Your task to perform on an android device: read, delete, or share a saved page in the chrome app Image 0: 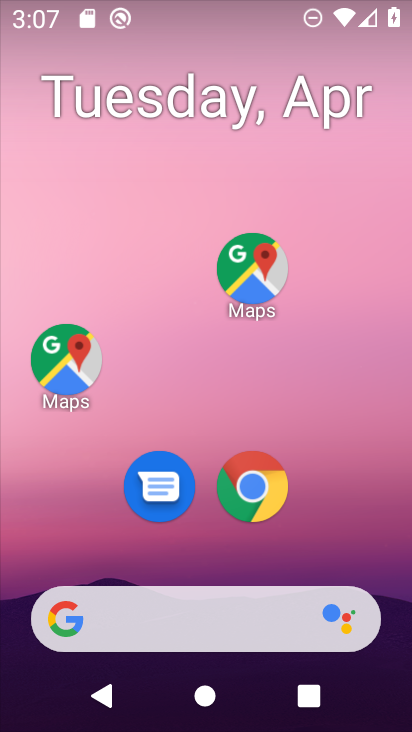
Step 0: click (250, 504)
Your task to perform on an android device: read, delete, or share a saved page in the chrome app Image 1: 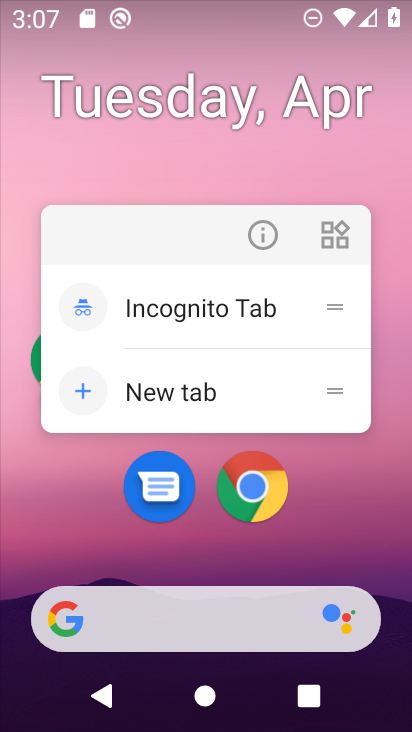
Step 1: click (213, 401)
Your task to perform on an android device: read, delete, or share a saved page in the chrome app Image 2: 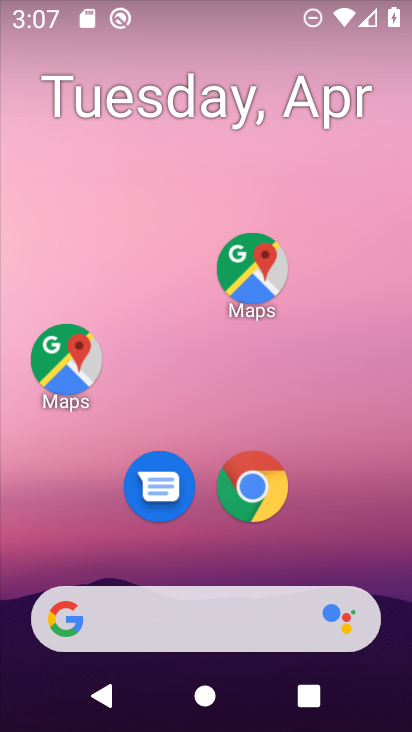
Step 2: click (255, 499)
Your task to perform on an android device: read, delete, or share a saved page in the chrome app Image 3: 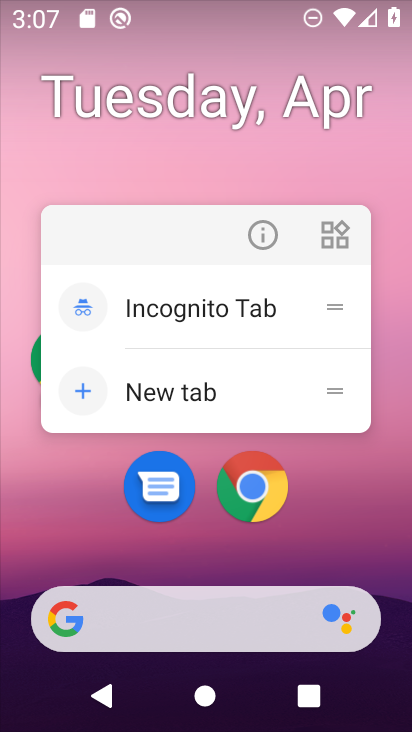
Step 3: click (253, 246)
Your task to perform on an android device: read, delete, or share a saved page in the chrome app Image 4: 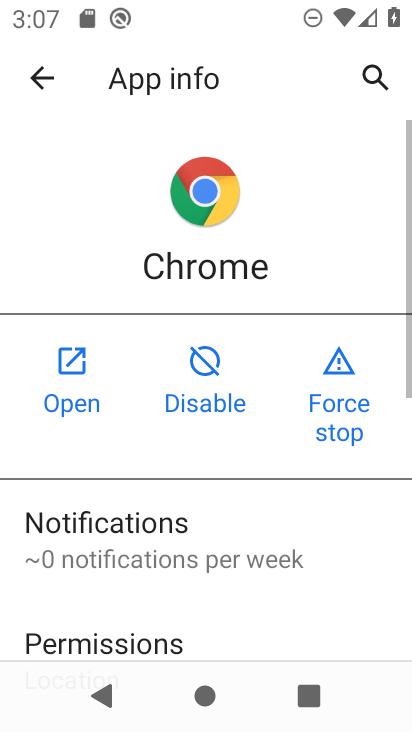
Step 4: click (45, 378)
Your task to perform on an android device: read, delete, or share a saved page in the chrome app Image 5: 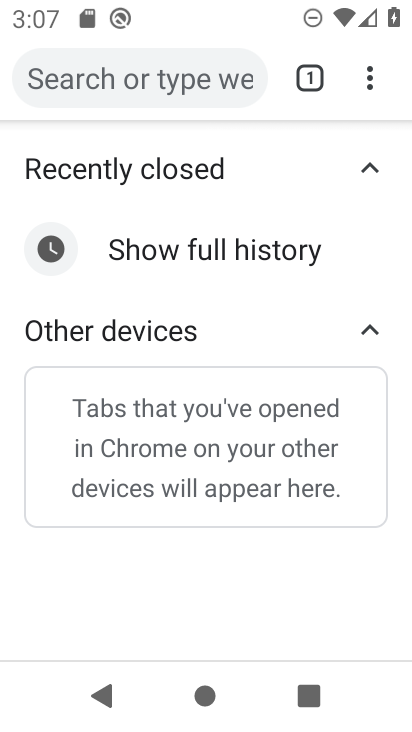
Step 5: click (320, 73)
Your task to perform on an android device: read, delete, or share a saved page in the chrome app Image 6: 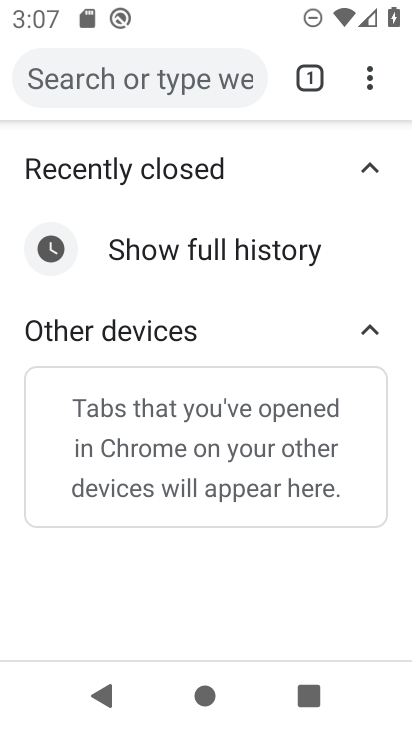
Step 6: click (310, 82)
Your task to perform on an android device: read, delete, or share a saved page in the chrome app Image 7: 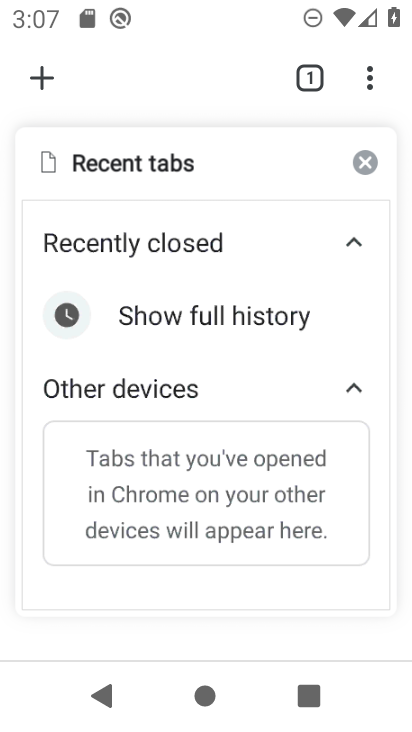
Step 7: click (33, 88)
Your task to perform on an android device: read, delete, or share a saved page in the chrome app Image 8: 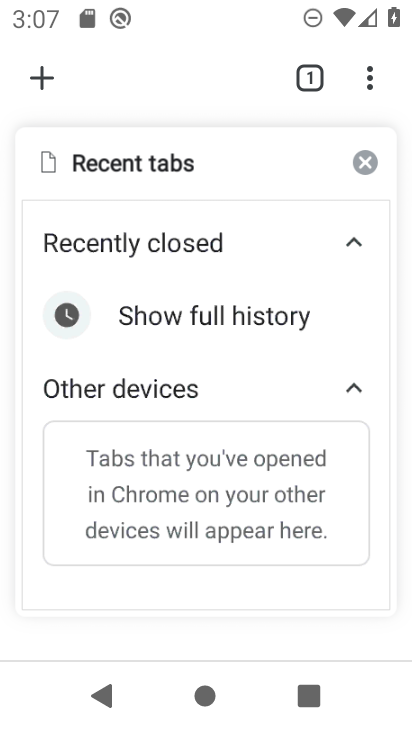
Step 8: click (40, 76)
Your task to perform on an android device: read, delete, or share a saved page in the chrome app Image 9: 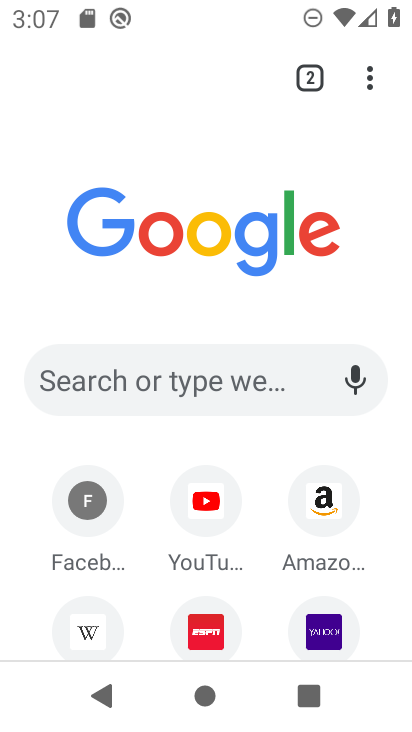
Step 9: click (102, 514)
Your task to perform on an android device: read, delete, or share a saved page in the chrome app Image 10: 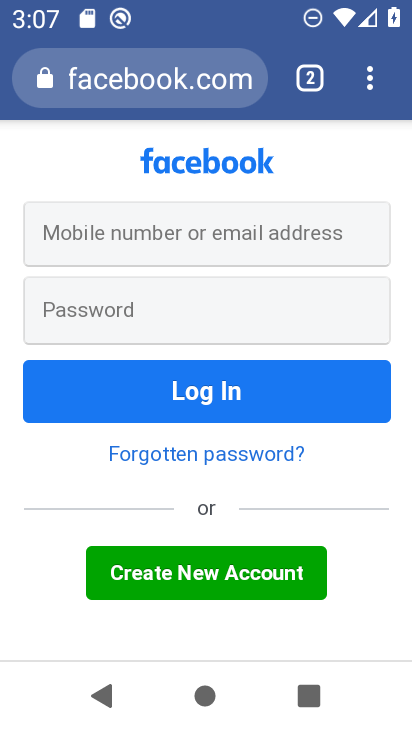
Step 10: task complete